Your task to perform on an android device: Open the calendar and show me this week's events Image 0: 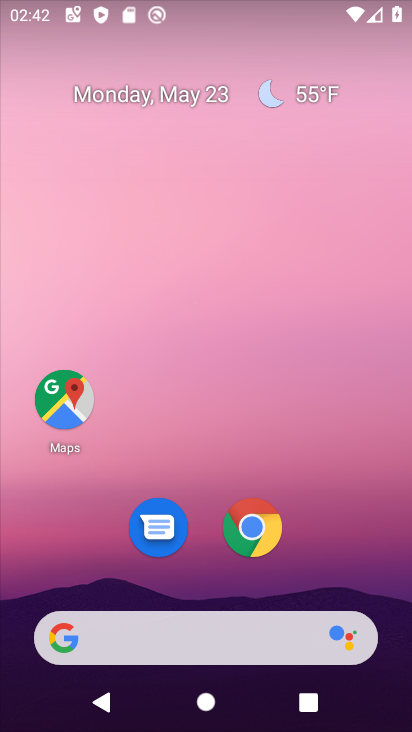
Step 0: drag from (296, 541) to (202, 37)
Your task to perform on an android device: Open the calendar and show me this week's events Image 1: 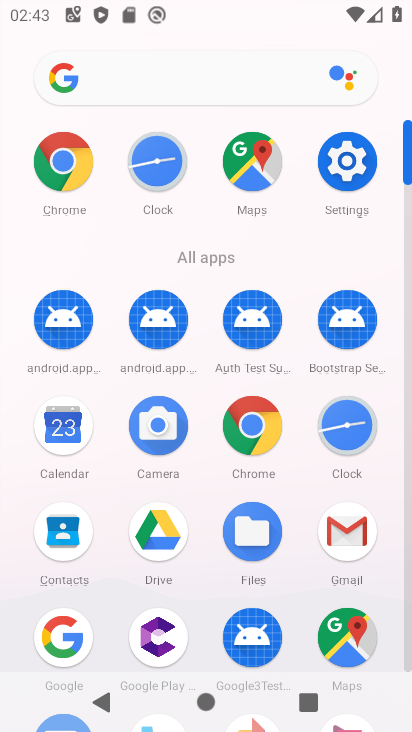
Step 1: click (59, 422)
Your task to perform on an android device: Open the calendar and show me this week's events Image 2: 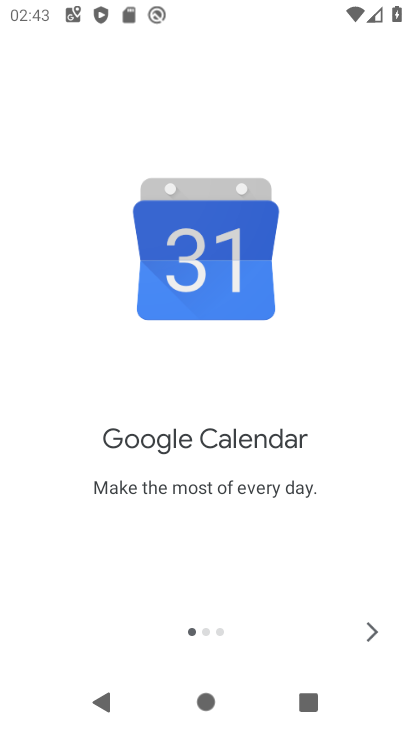
Step 2: click (366, 625)
Your task to perform on an android device: Open the calendar and show me this week's events Image 3: 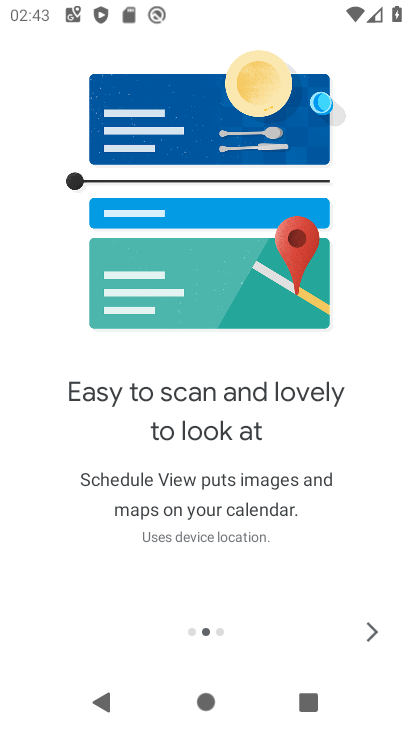
Step 3: click (366, 624)
Your task to perform on an android device: Open the calendar and show me this week's events Image 4: 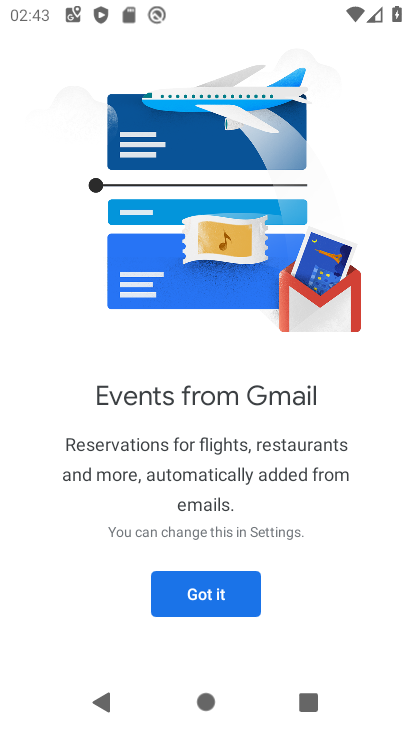
Step 4: click (366, 624)
Your task to perform on an android device: Open the calendar and show me this week's events Image 5: 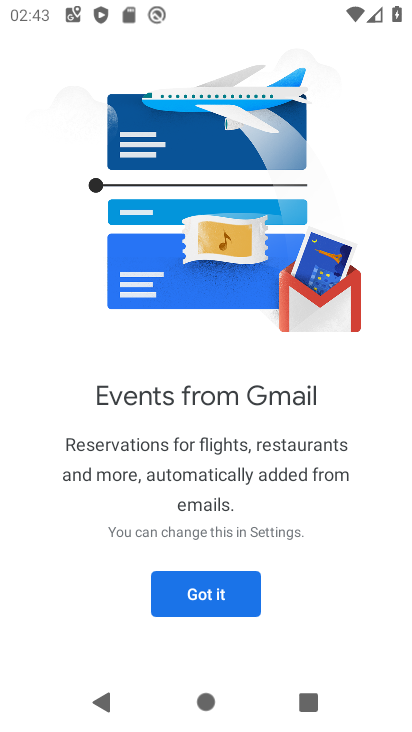
Step 5: click (245, 601)
Your task to perform on an android device: Open the calendar and show me this week's events Image 6: 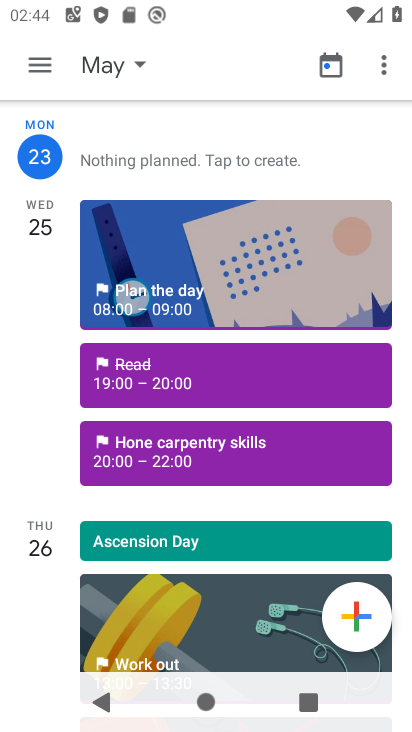
Step 6: click (95, 76)
Your task to perform on an android device: Open the calendar and show me this week's events Image 7: 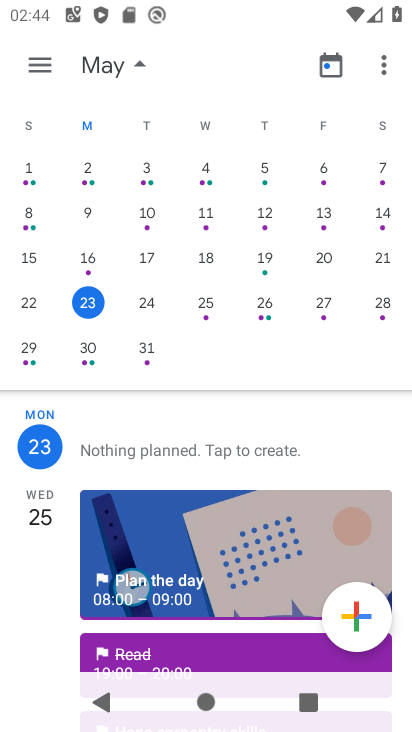
Step 7: click (327, 65)
Your task to perform on an android device: Open the calendar and show me this week's events Image 8: 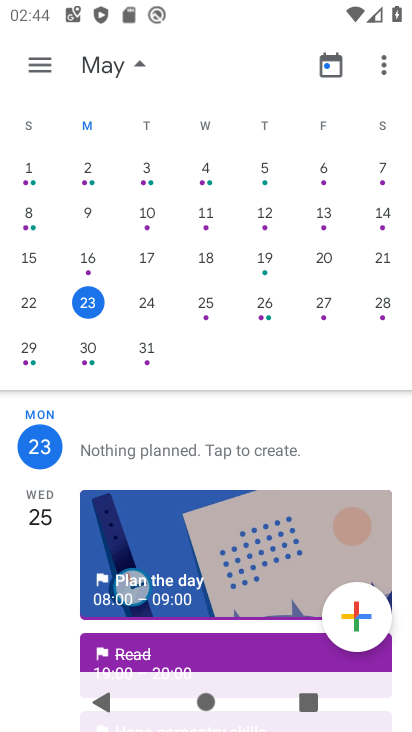
Step 8: click (327, 65)
Your task to perform on an android device: Open the calendar and show me this week's events Image 9: 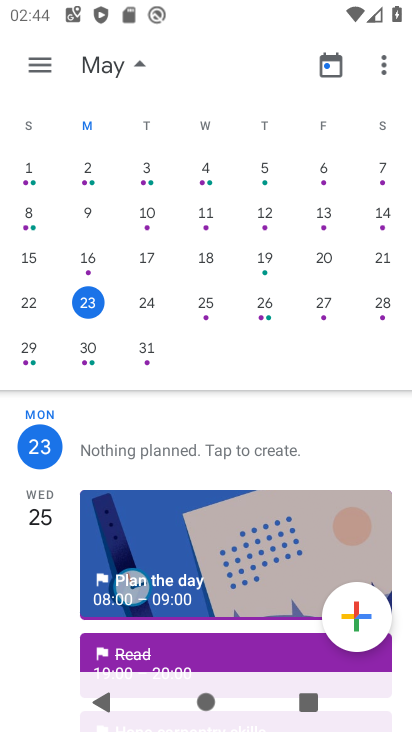
Step 9: click (36, 61)
Your task to perform on an android device: Open the calendar and show me this week's events Image 10: 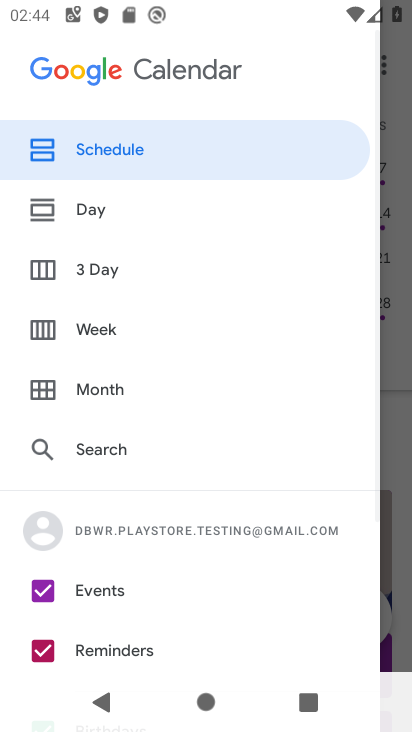
Step 10: click (89, 317)
Your task to perform on an android device: Open the calendar and show me this week's events Image 11: 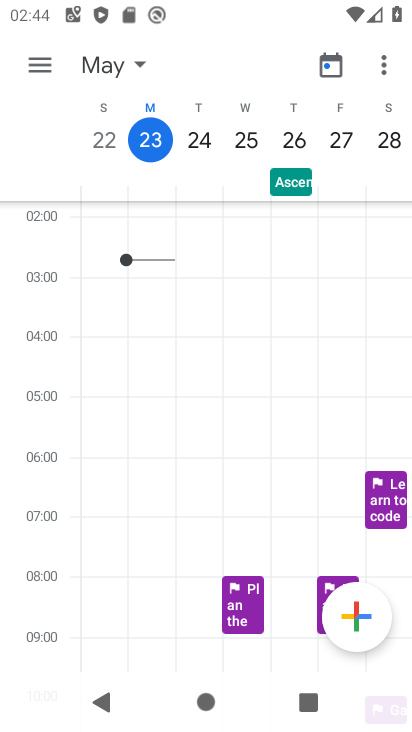
Step 11: task complete